Your task to perform on an android device: turn off notifications settings in the gmail app Image 0: 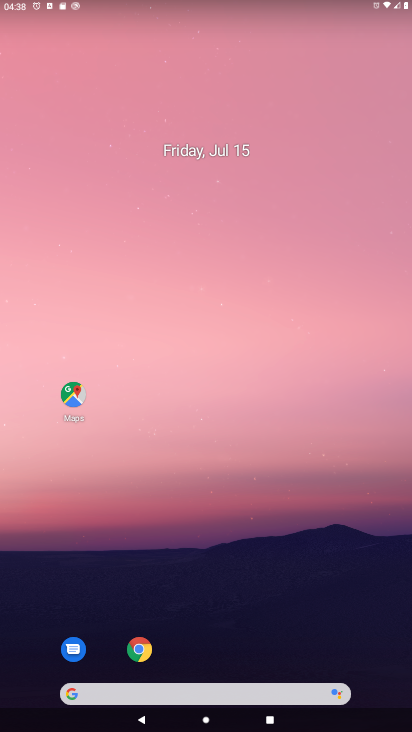
Step 0: drag from (370, 655) to (292, 28)
Your task to perform on an android device: turn off notifications settings in the gmail app Image 1: 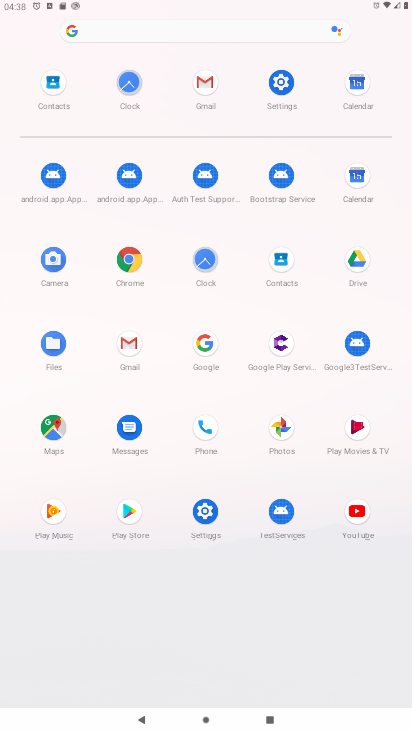
Step 1: click (130, 345)
Your task to perform on an android device: turn off notifications settings in the gmail app Image 2: 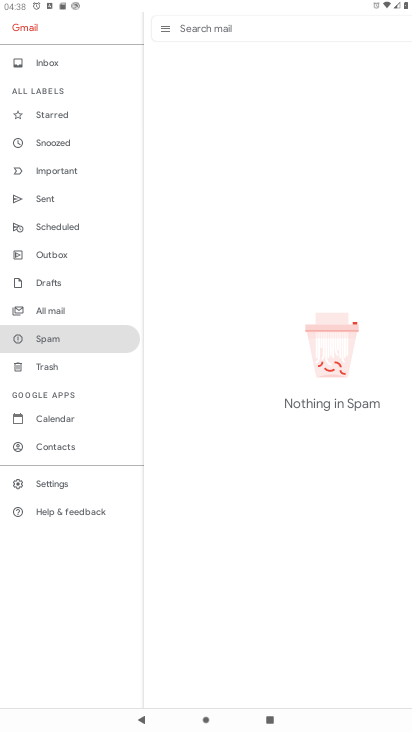
Step 2: click (56, 481)
Your task to perform on an android device: turn off notifications settings in the gmail app Image 3: 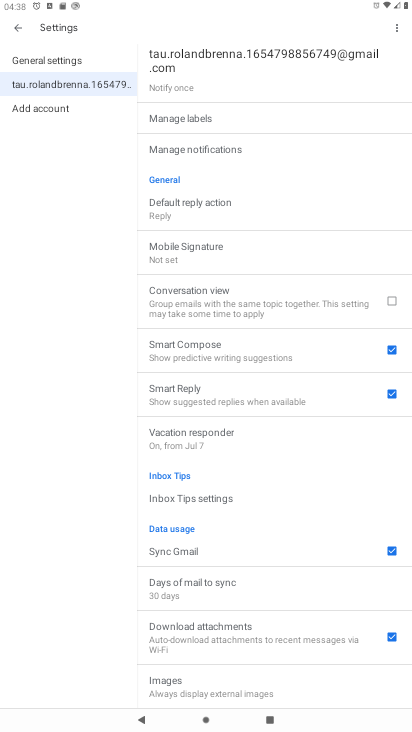
Step 3: click (182, 142)
Your task to perform on an android device: turn off notifications settings in the gmail app Image 4: 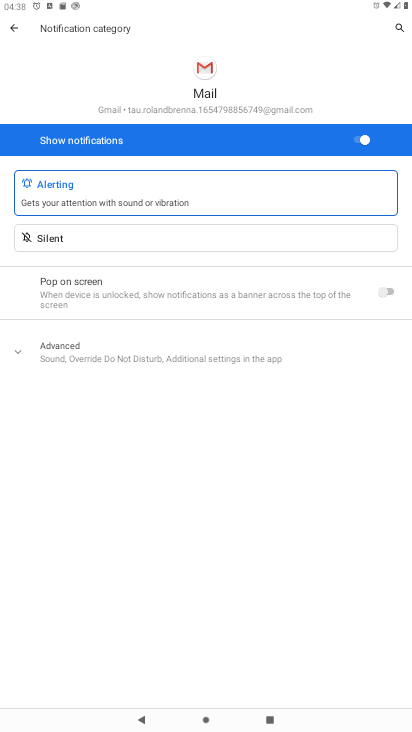
Step 4: click (355, 140)
Your task to perform on an android device: turn off notifications settings in the gmail app Image 5: 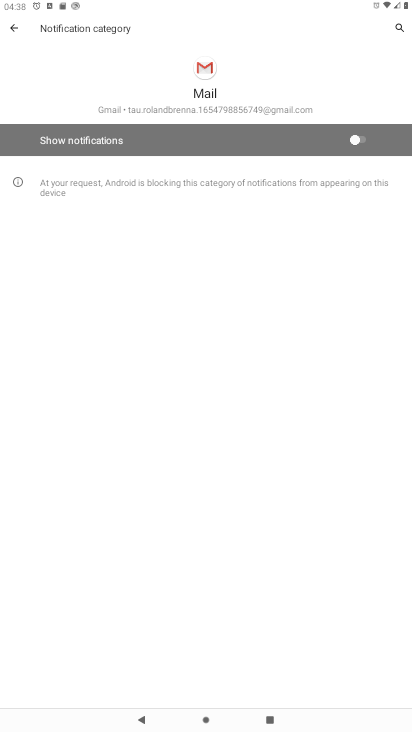
Step 5: task complete